Your task to perform on an android device: Open location settings Image 0: 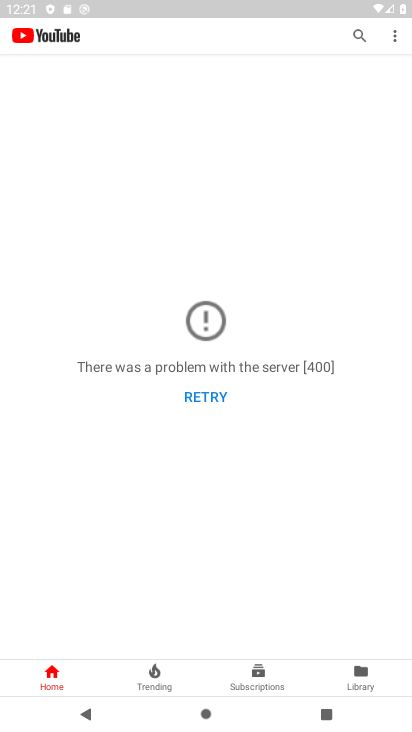
Step 0: press home button
Your task to perform on an android device: Open location settings Image 1: 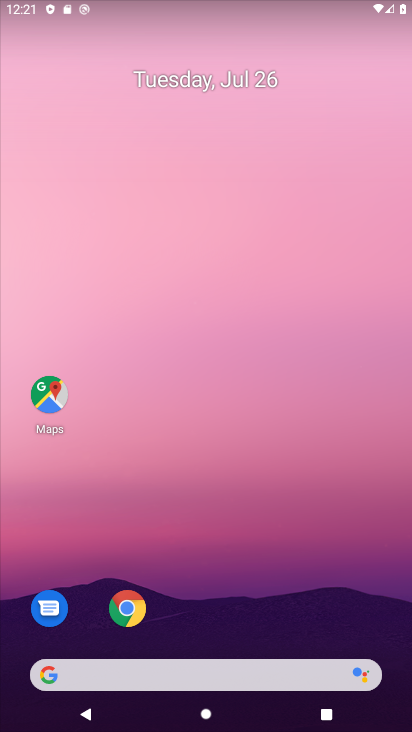
Step 1: drag from (354, 618) to (368, 151)
Your task to perform on an android device: Open location settings Image 2: 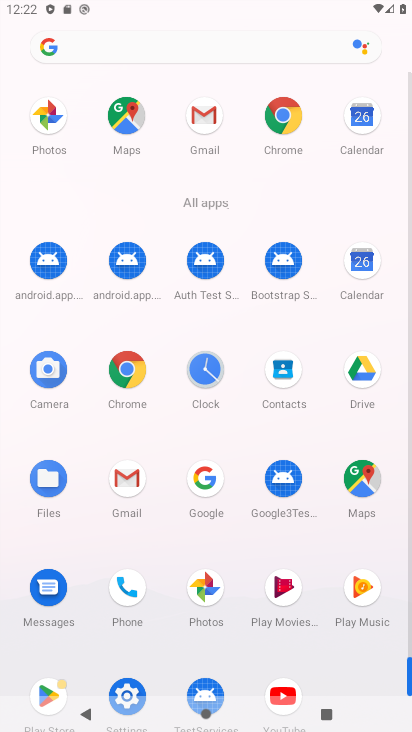
Step 2: drag from (164, 650) to (163, 567)
Your task to perform on an android device: Open location settings Image 3: 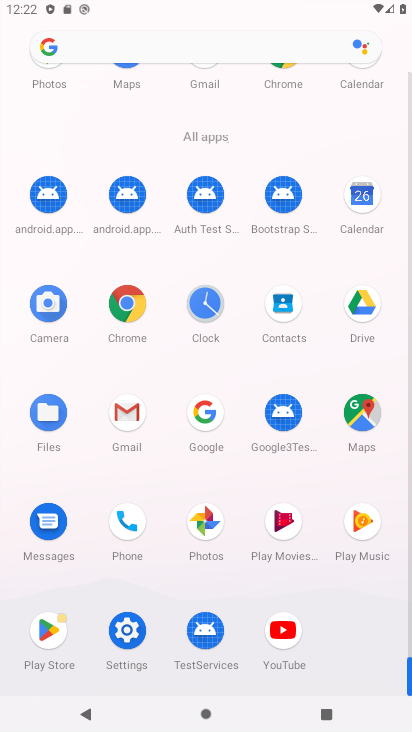
Step 3: click (128, 630)
Your task to perform on an android device: Open location settings Image 4: 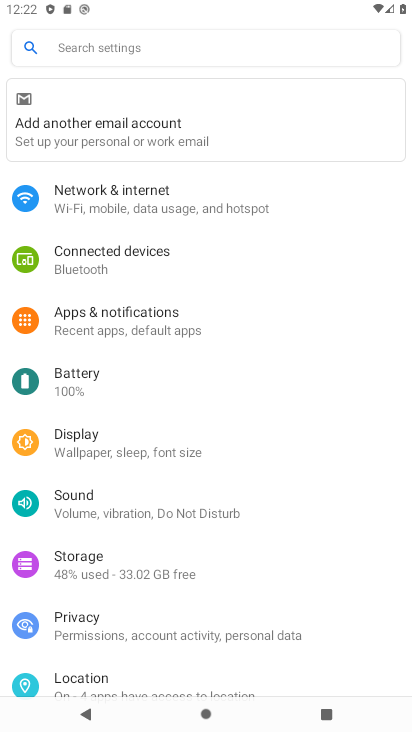
Step 4: drag from (330, 537) to (331, 400)
Your task to perform on an android device: Open location settings Image 5: 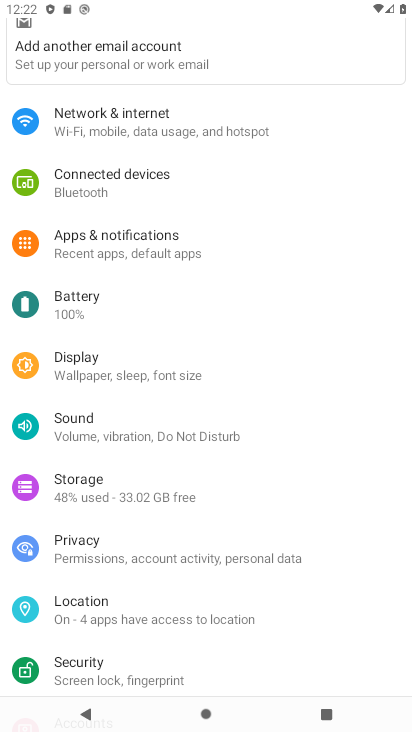
Step 5: drag from (344, 585) to (343, 433)
Your task to perform on an android device: Open location settings Image 6: 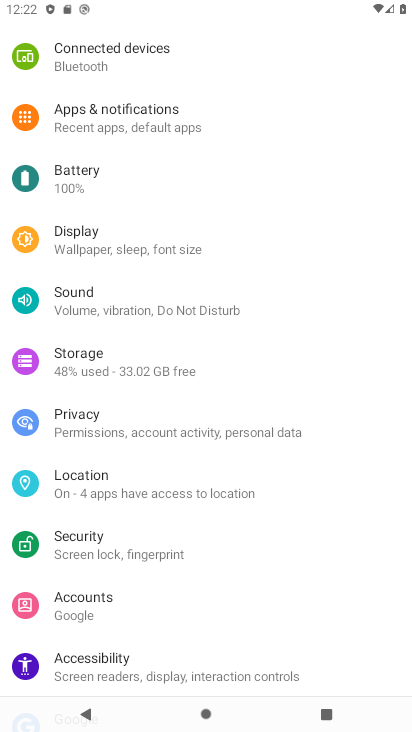
Step 6: drag from (334, 562) to (331, 447)
Your task to perform on an android device: Open location settings Image 7: 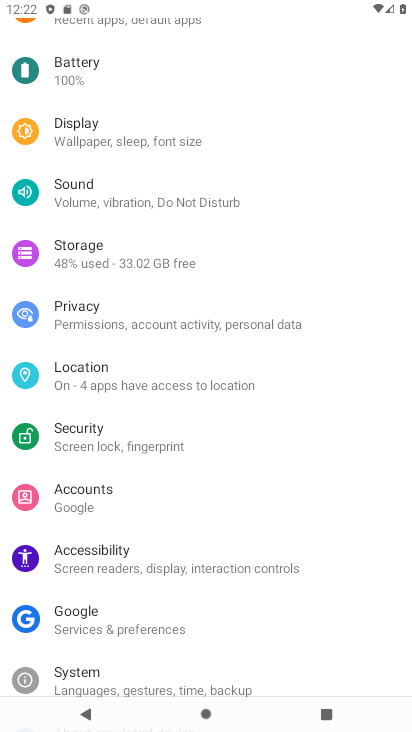
Step 7: drag from (315, 626) to (315, 508)
Your task to perform on an android device: Open location settings Image 8: 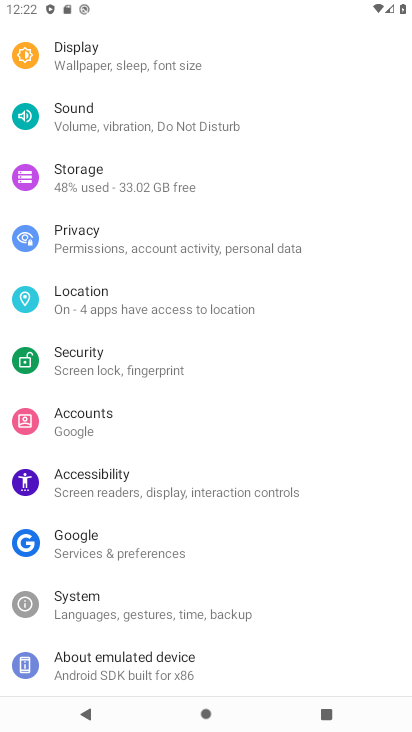
Step 8: drag from (339, 354) to (329, 462)
Your task to perform on an android device: Open location settings Image 9: 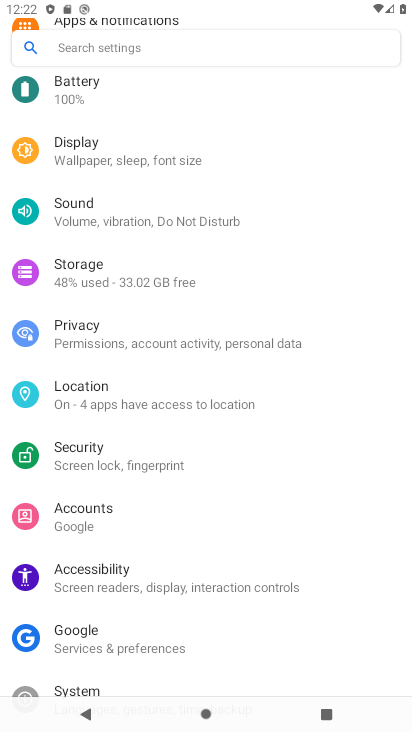
Step 9: click (229, 400)
Your task to perform on an android device: Open location settings Image 10: 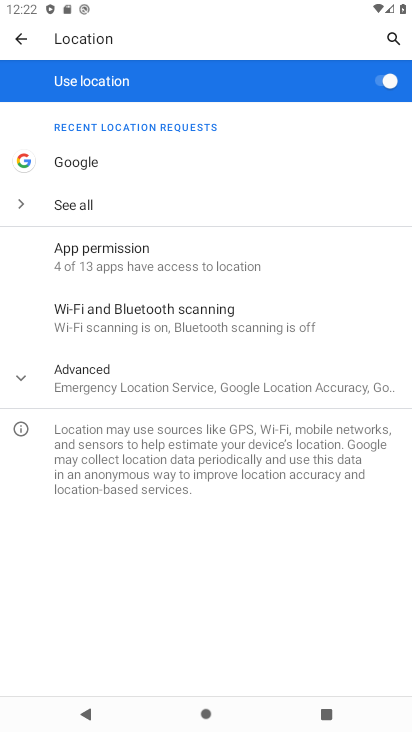
Step 10: task complete